Your task to perform on an android device: Open the calendar and show me this week's events Image 0: 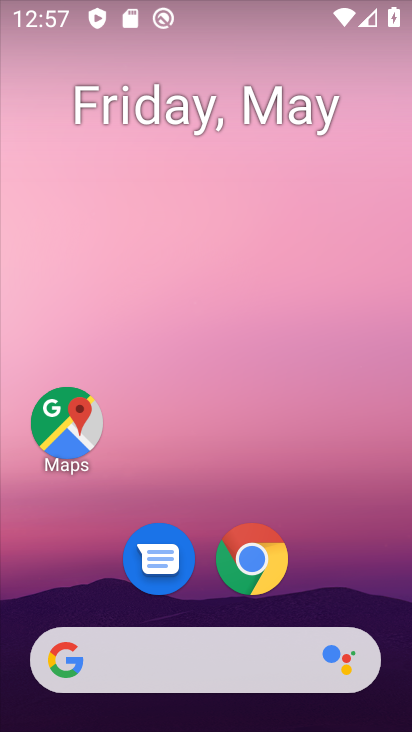
Step 0: drag from (371, 582) to (371, 166)
Your task to perform on an android device: Open the calendar and show me this week's events Image 1: 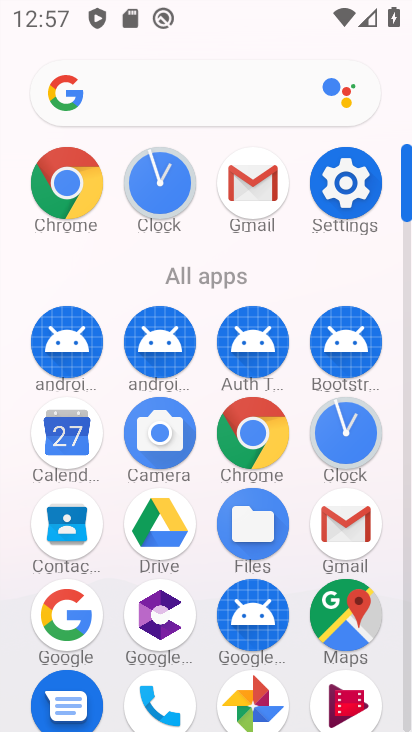
Step 1: click (60, 434)
Your task to perform on an android device: Open the calendar and show me this week's events Image 2: 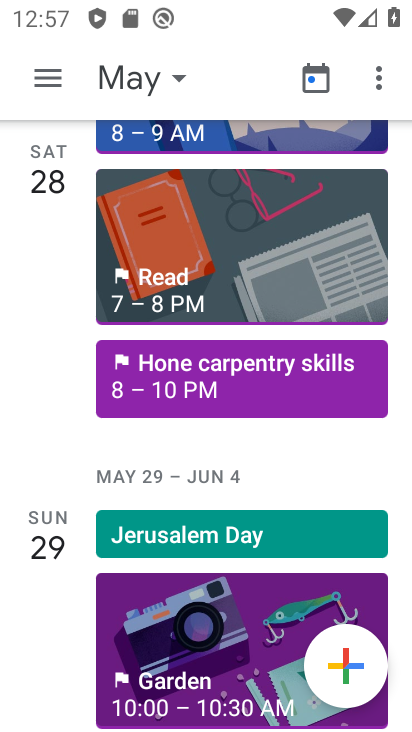
Step 2: click (138, 76)
Your task to perform on an android device: Open the calendar and show me this week's events Image 3: 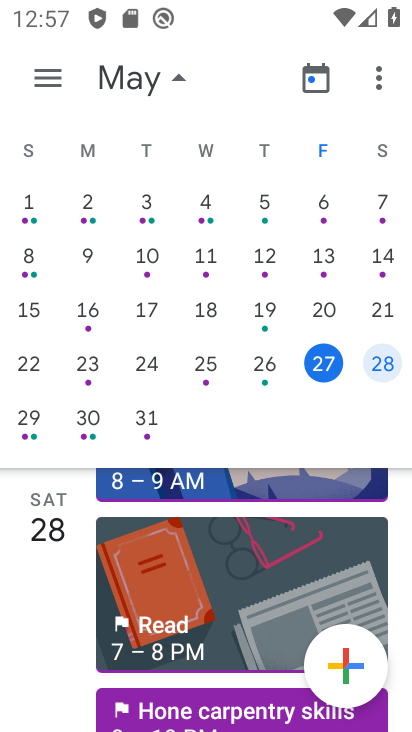
Step 3: task complete